Your task to perform on an android device: Open accessibility settings Image 0: 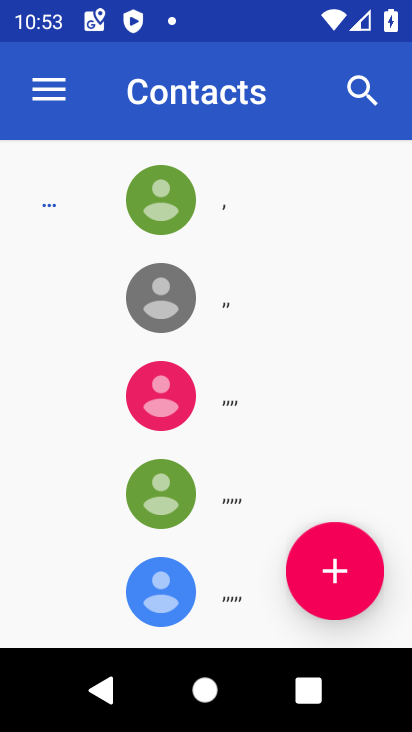
Step 0: press home button
Your task to perform on an android device: Open accessibility settings Image 1: 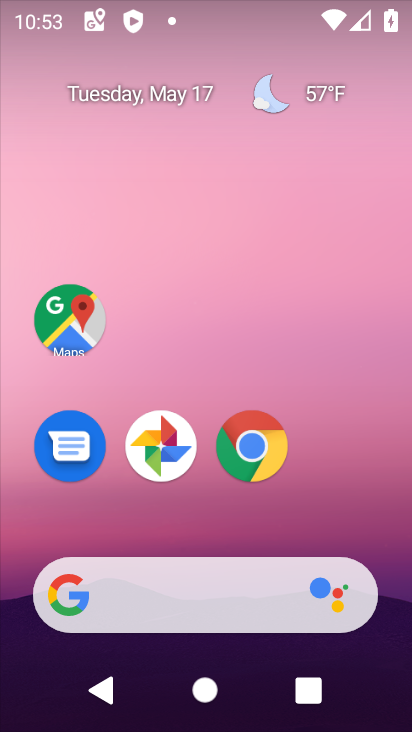
Step 1: drag from (231, 557) to (255, 2)
Your task to perform on an android device: Open accessibility settings Image 2: 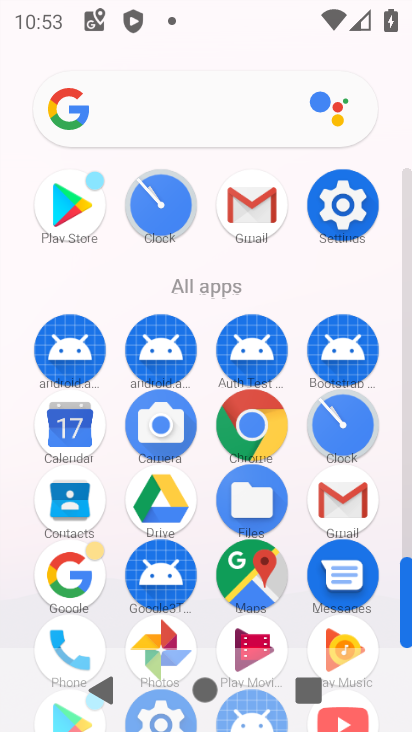
Step 2: click (327, 198)
Your task to perform on an android device: Open accessibility settings Image 3: 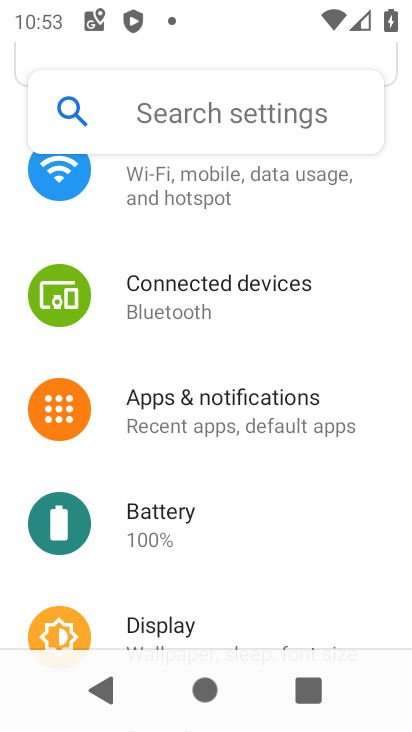
Step 3: drag from (210, 545) to (210, 114)
Your task to perform on an android device: Open accessibility settings Image 4: 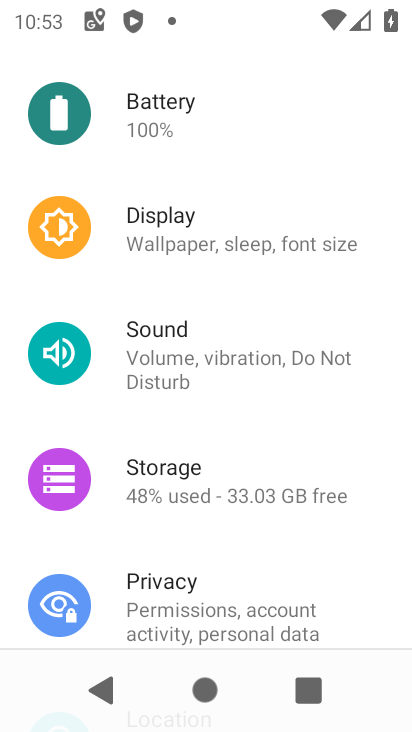
Step 4: drag from (229, 516) to (220, 97)
Your task to perform on an android device: Open accessibility settings Image 5: 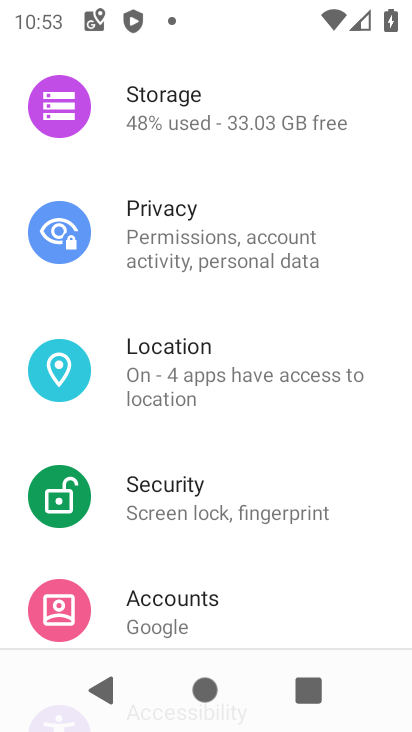
Step 5: drag from (185, 617) to (234, 9)
Your task to perform on an android device: Open accessibility settings Image 6: 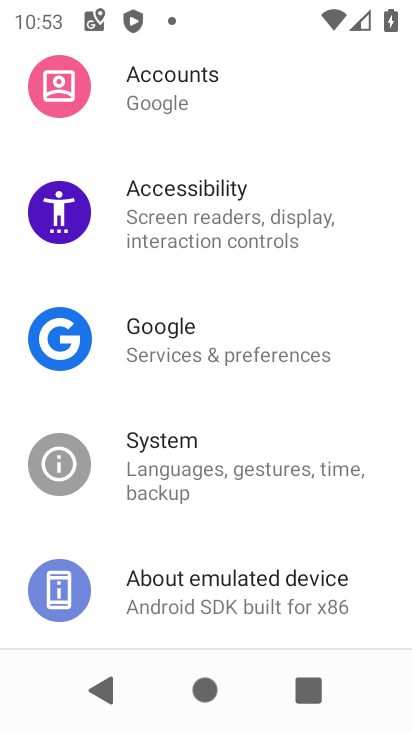
Step 6: click (177, 239)
Your task to perform on an android device: Open accessibility settings Image 7: 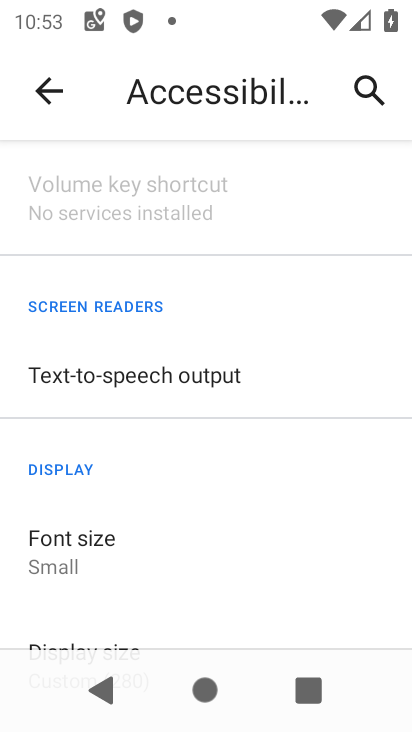
Step 7: task complete